Your task to perform on an android device: Go to battery settings Image 0: 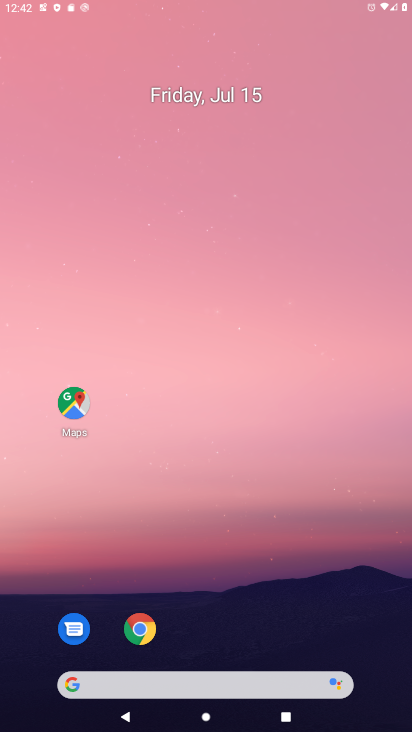
Step 0: press home button
Your task to perform on an android device: Go to battery settings Image 1: 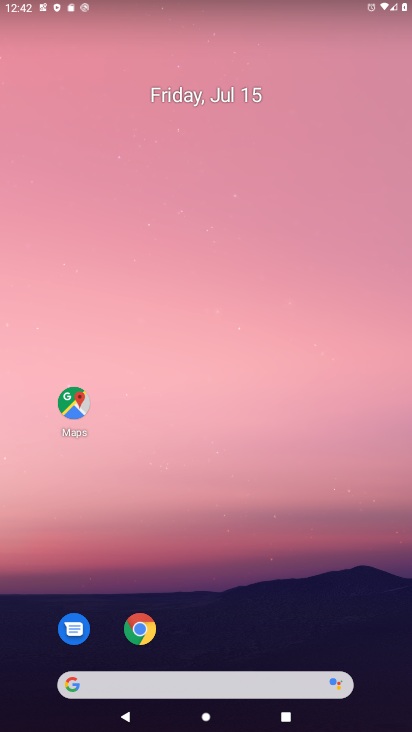
Step 1: drag from (273, 618) to (298, 0)
Your task to perform on an android device: Go to battery settings Image 2: 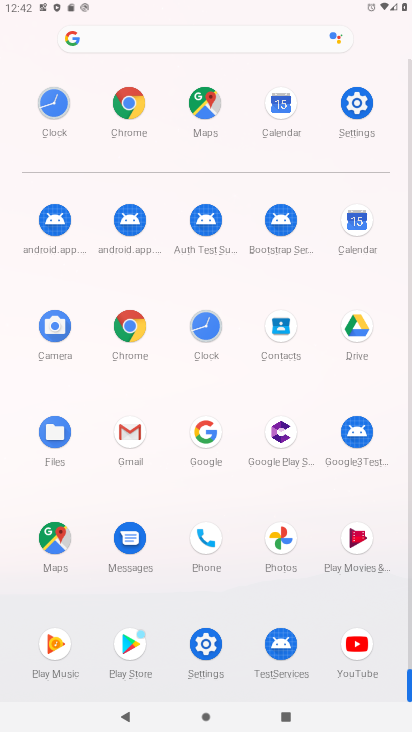
Step 2: click (358, 99)
Your task to perform on an android device: Go to battery settings Image 3: 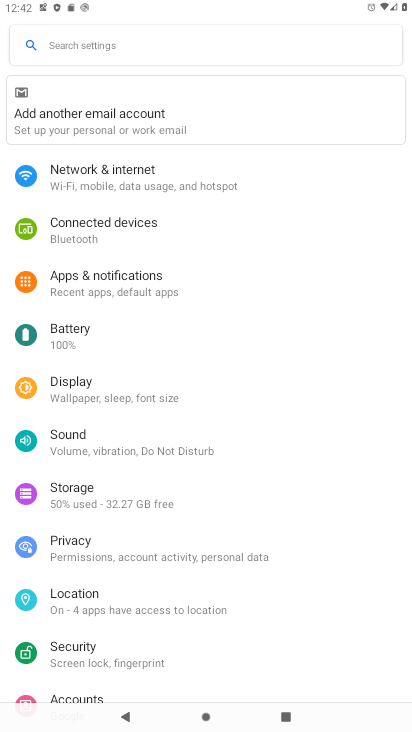
Step 3: click (62, 341)
Your task to perform on an android device: Go to battery settings Image 4: 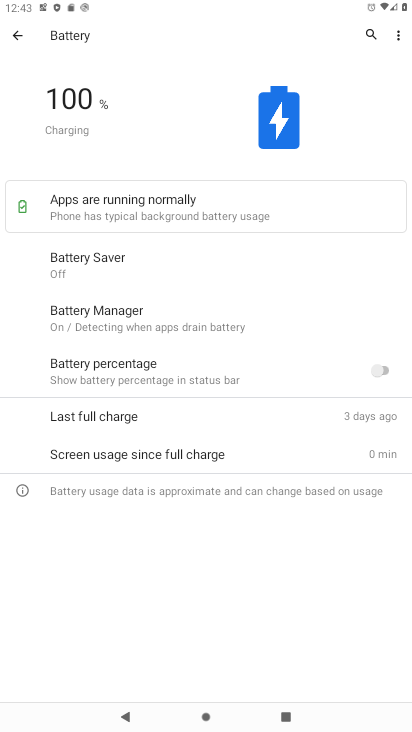
Step 4: task complete